Your task to perform on an android device: star an email in the gmail app Image 0: 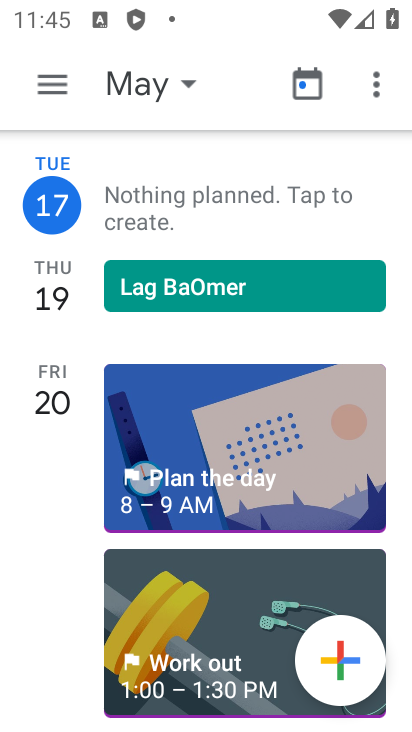
Step 0: press home button
Your task to perform on an android device: star an email in the gmail app Image 1: 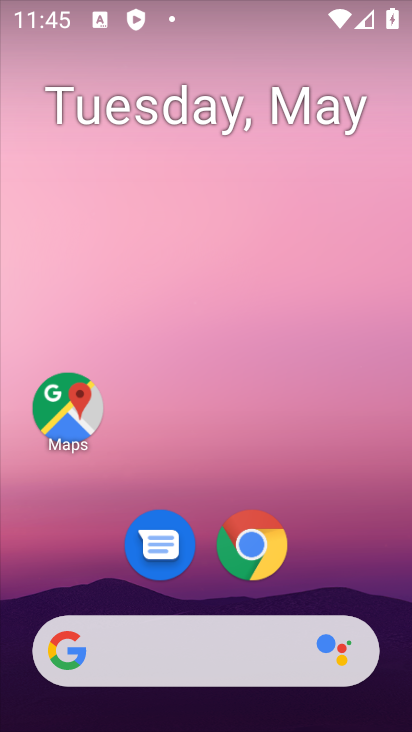
Step 1: drag from (212, 589) to (226, 232)
Your task to perform on an android device: star an email in the gmail app Image 2: 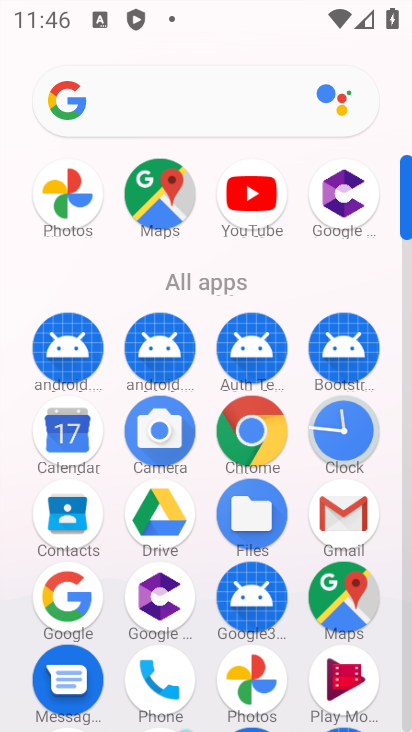
Step 2: click (335, 521)
Your task to perform on an android device: star an email in the gmail app Image 3: 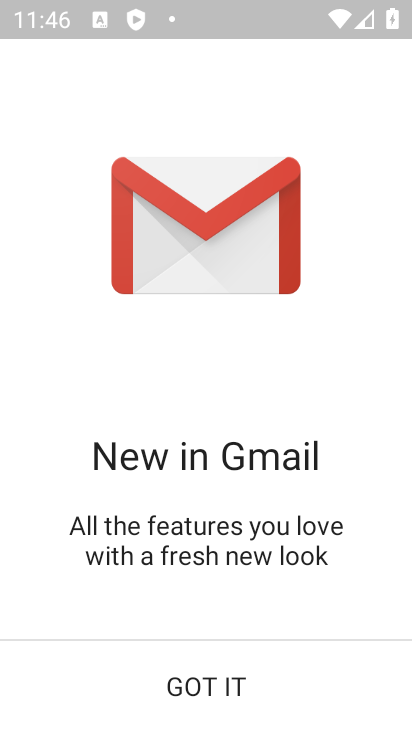
Step 3: click (217, 680)
Your task to perform on an android device: star an email in the gmail app Image 4: 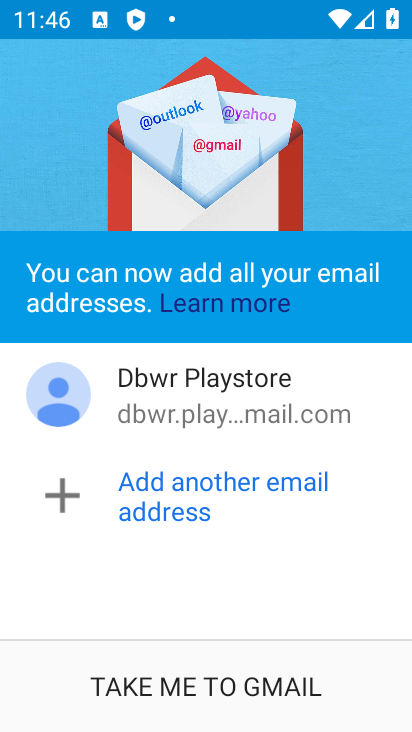
Step 4: click (183, 674)
Your task to perform on an android device: star an email in the gmail app Image 5: 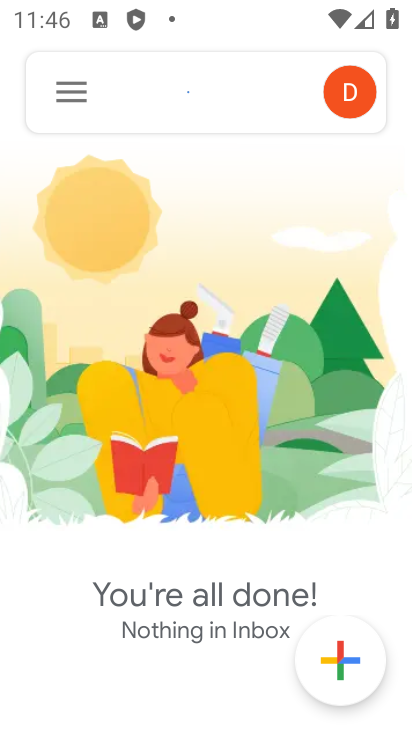
Step 5: click (72, 94)
Your task to perform on an android device: star an email in the gmail app Image 6: 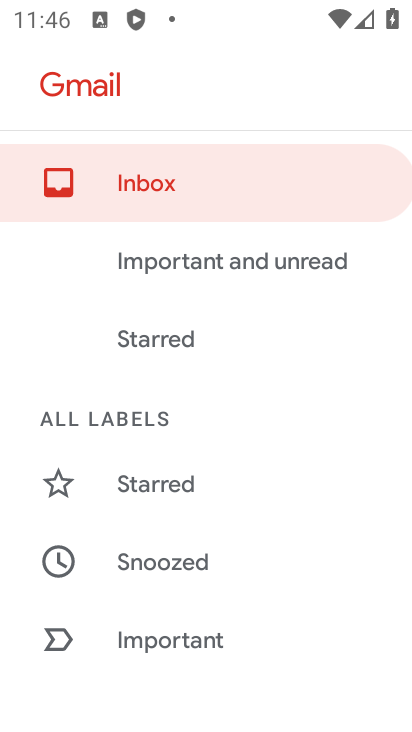
Step 6: drag from (180, 601) to (247, 283)
Your task to perform on an android device: star an email in the gmail app Image 7: 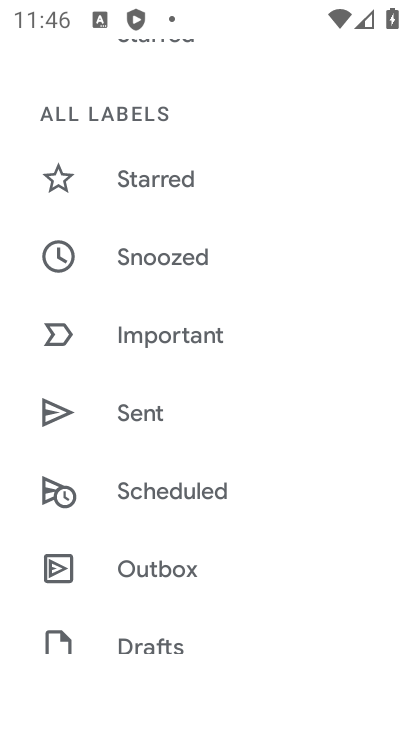
Step 7: drag from (142, 577) to (194, 306)
Your task to perform on an android device: star an email in the gmail app Image 8: 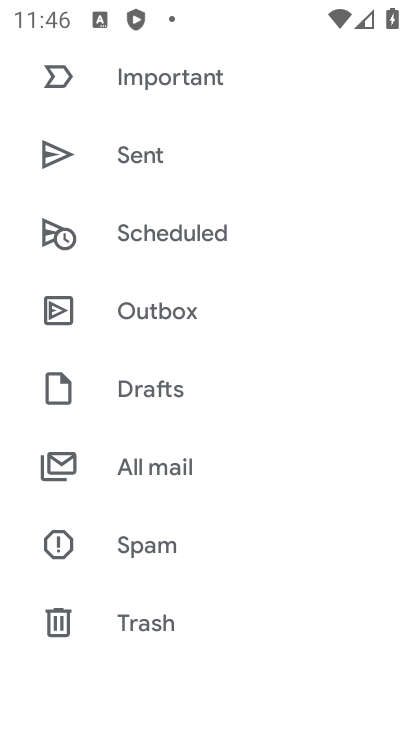
Step 8: drag from (143, 615) to (194, 377)
Your task to perform on an android device: star an email in the gmail app Image 9: 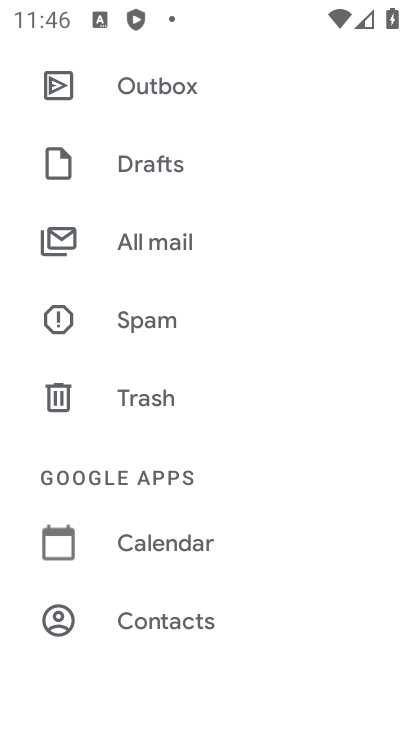
Step 9: click (152, 248)
Your task to perform on an android device: star an email in the gmail app Image 10: 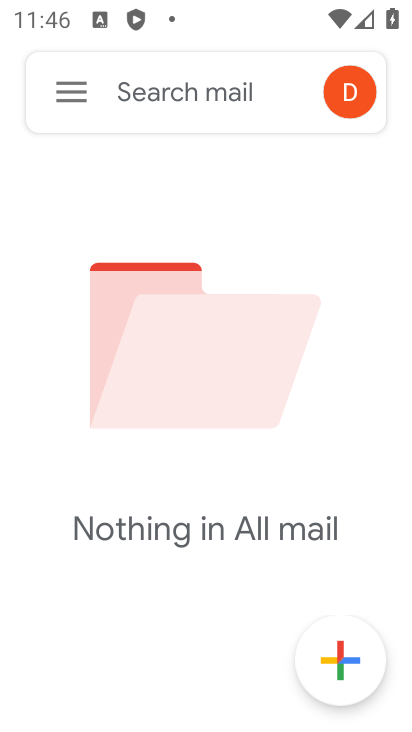
Step 10: task complete